Your task to perform on an android device: turn off airplane mode Image 0: 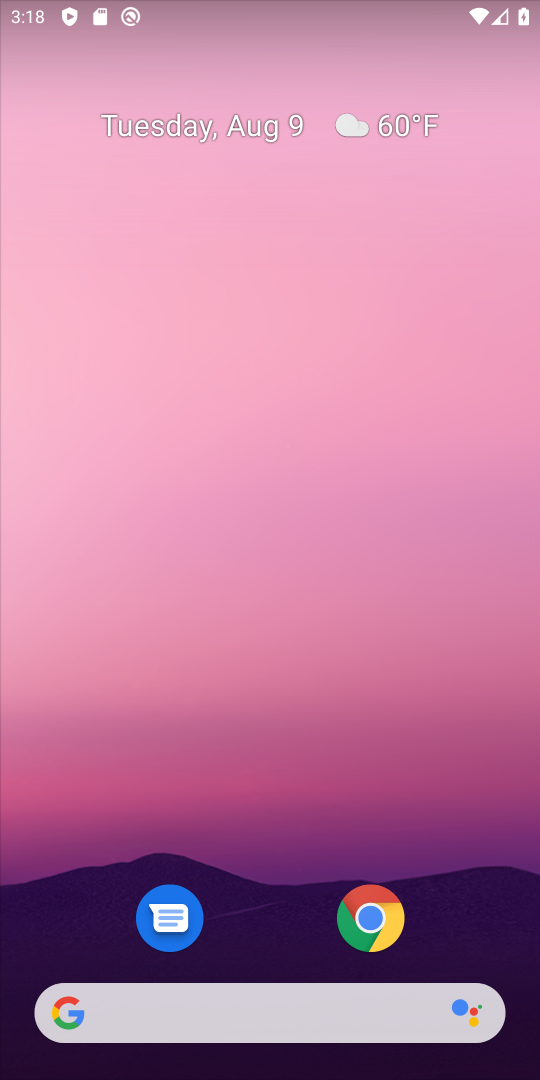
Step 0: drag from (254, 1013) to (519, 348)
Your task to perform on an android device: turn off airplane mode Image 1: 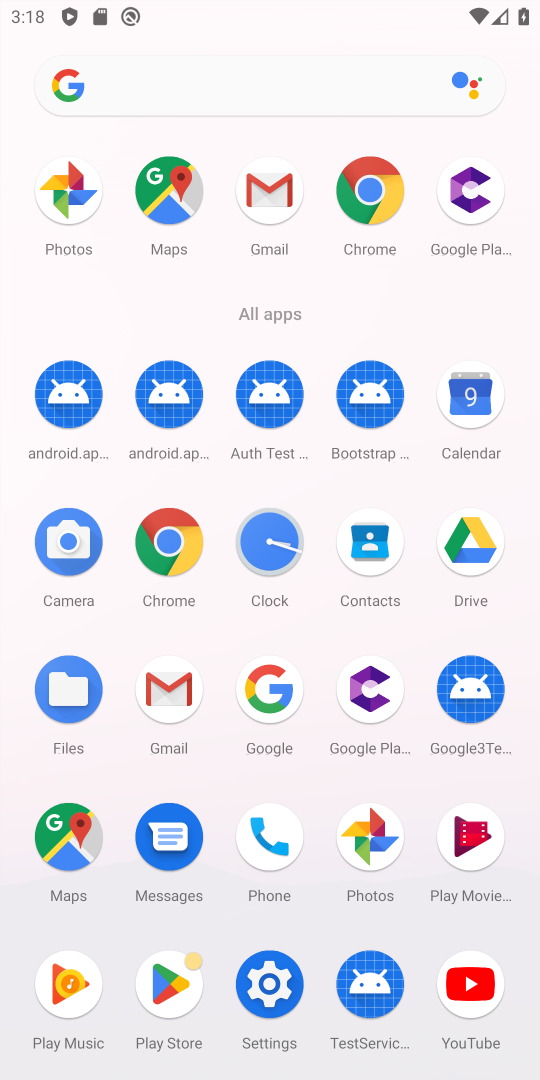
Step 1: click (278, 982)
Your task to perform on an android device: turn off airplane mode Image 2: 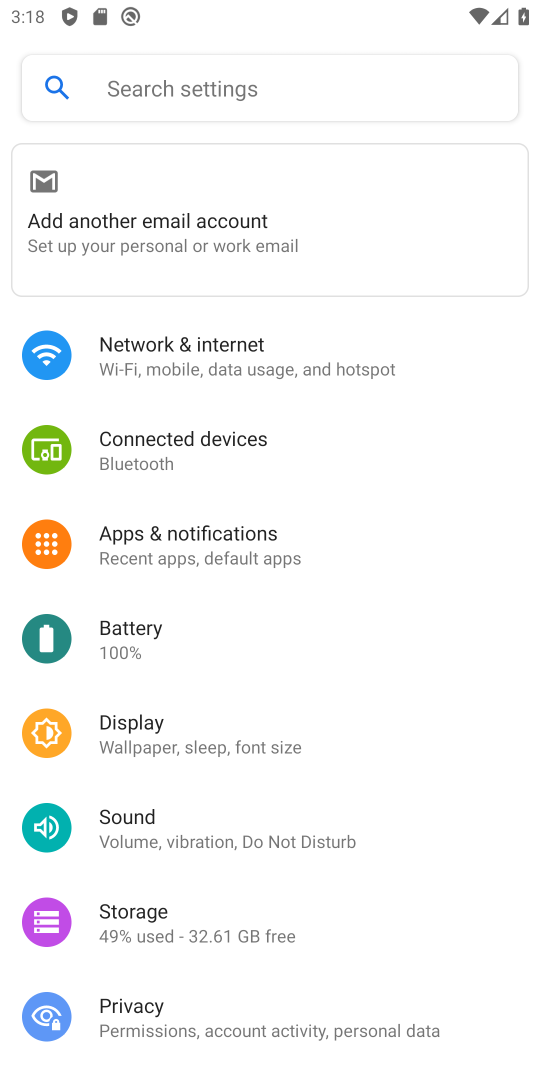
Step 2: click (177, 372)
Your task to perform on an android device: turn off airplane mode Image 3: 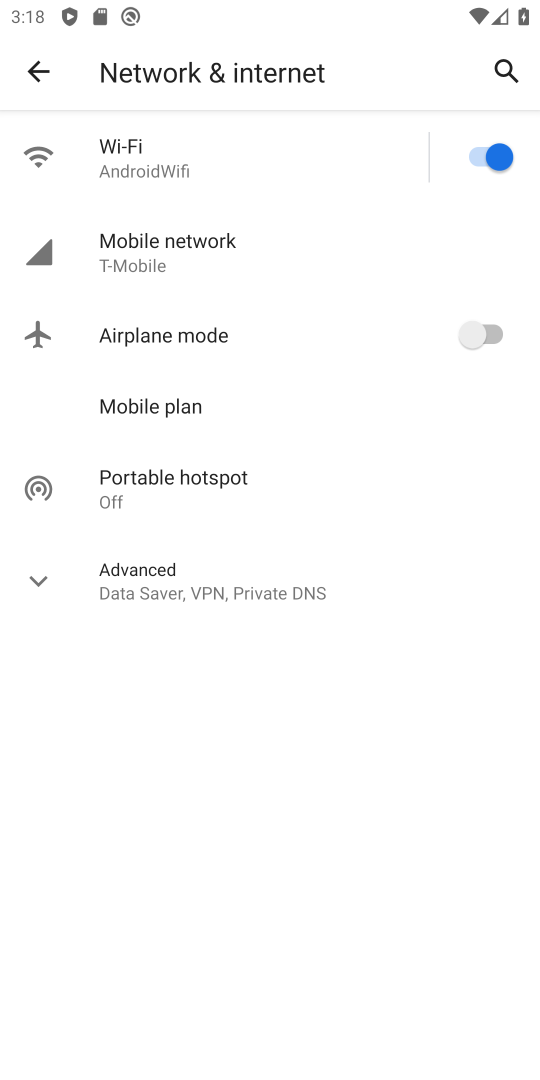
Step 3: task complete